Your task to perform on an android device: install app "Pluto TV - Live TV and Movies" Image 0: 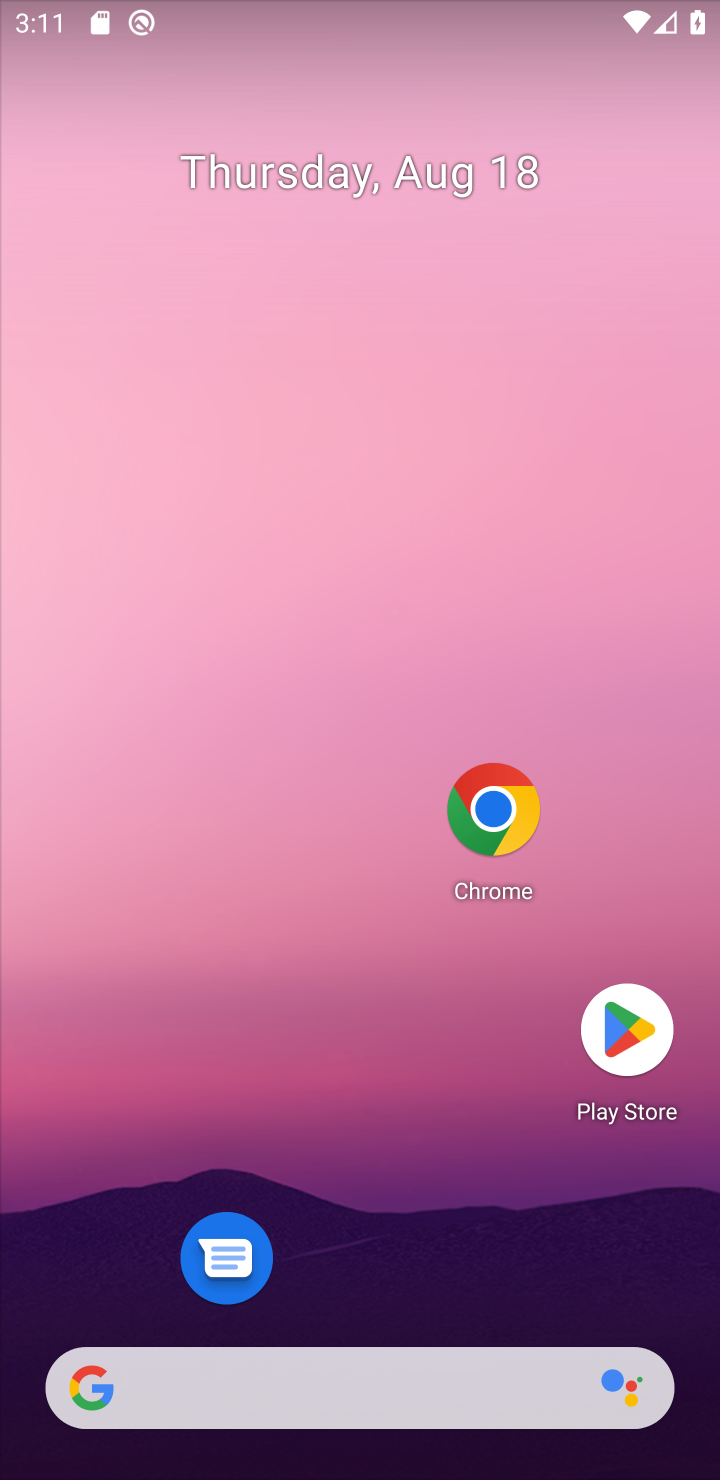
Step 0: drag from (377, 724) to (391, 230)
Your task to perform on an android device: install app "Pluto TV - Live TV and Movies" Image 1: 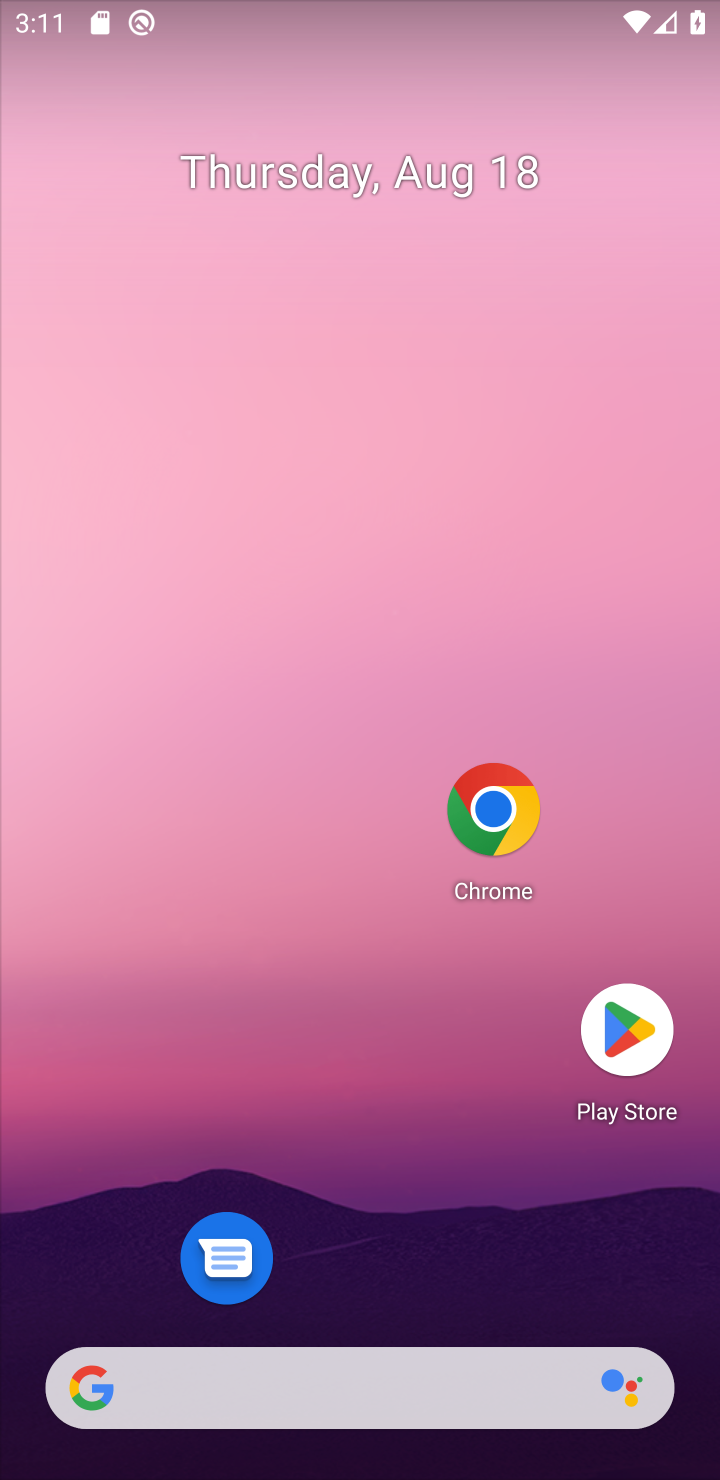
Step 1: drag from (365, 1293) to (341, 435)
Your task to perform on an android device: install app "Pluto TV - Live TV and Movies" Image 2: 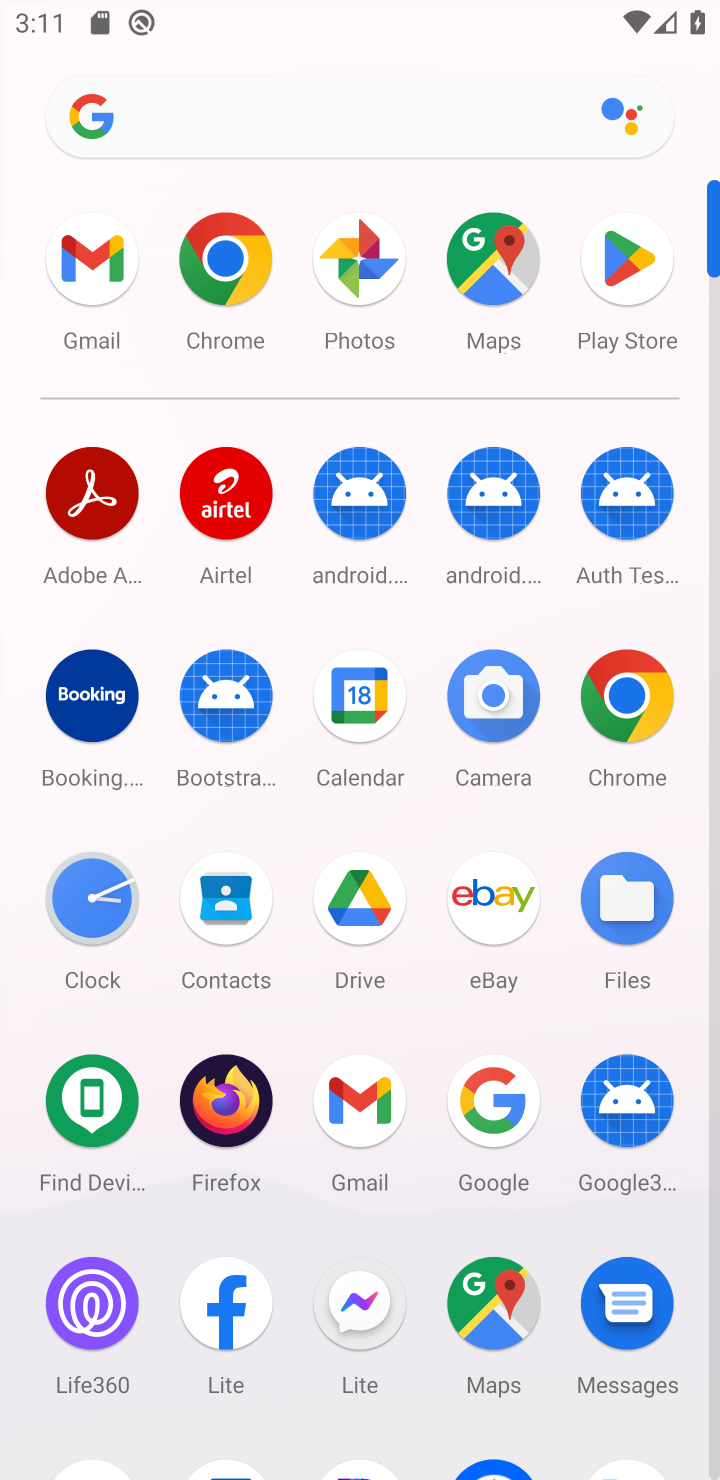
Step 2: click (639, 264)
Your task to perform on an android device: install app "Pluto TV - Live TV and Movies" Image 3: 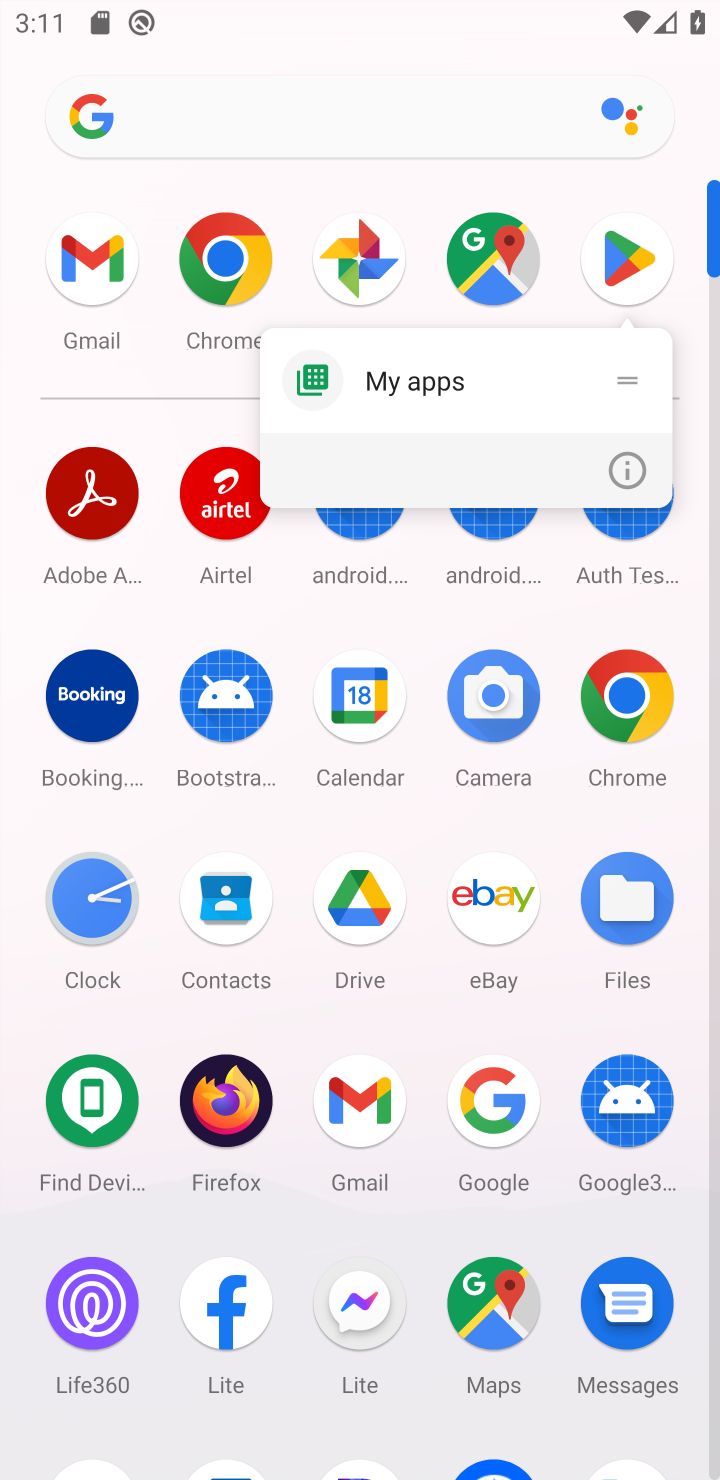
Step 3: click (639, 264)
Your task to perform on an android device: install app "Pluto TV - Live TV and Movies" Image 4: 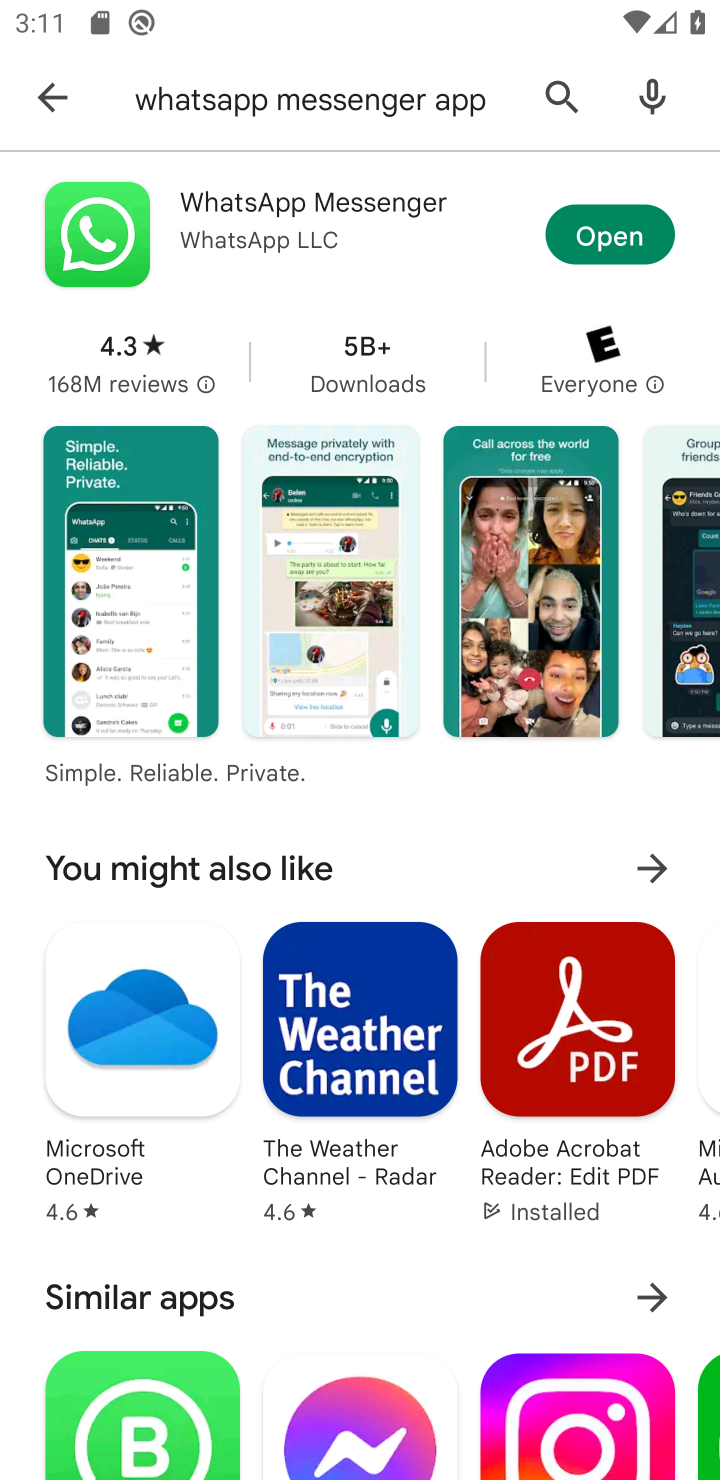
Step 4: click (537, 85)
Your task to perform on an android device: install app "Pluto TV - Live TV and Movies" Image 5: 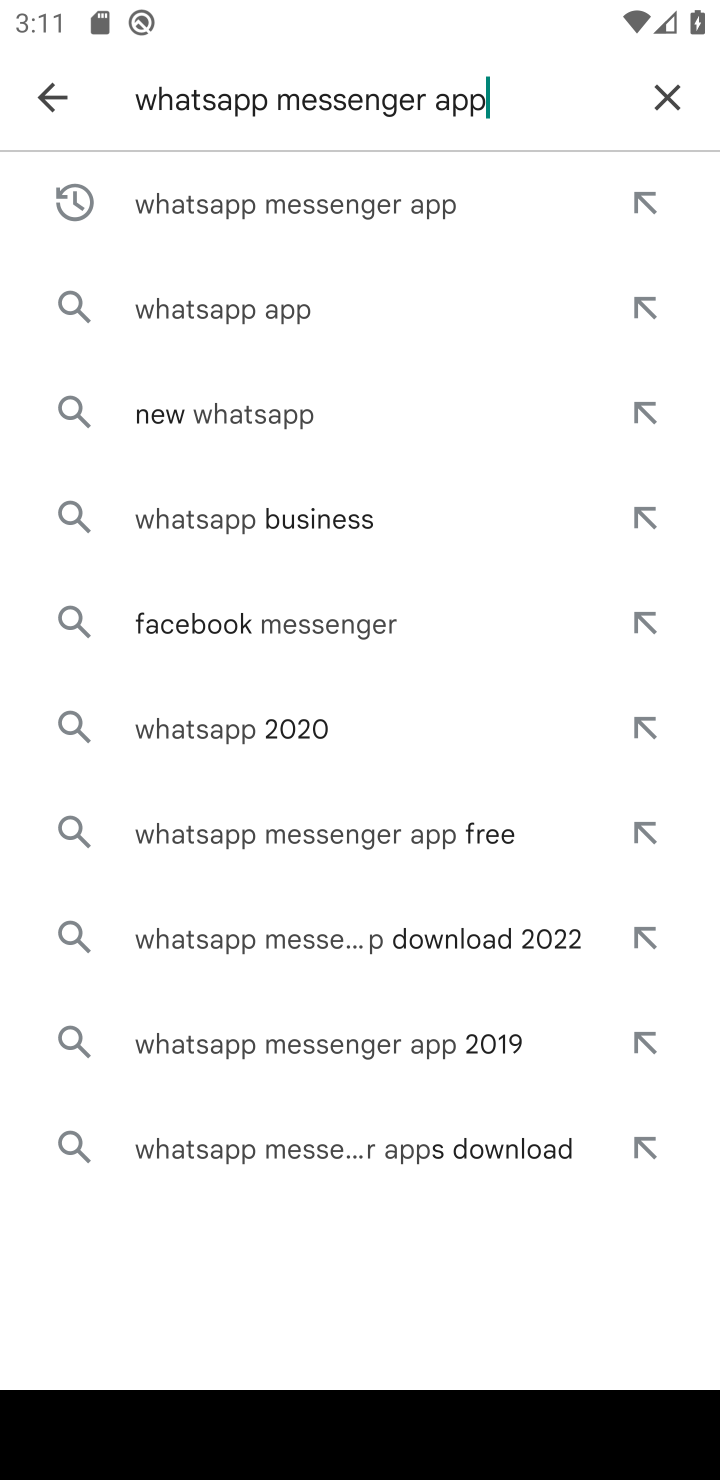
Step 5: click (663, 62)
Your task to perform on an android device: install app "Pluto TV - Live TV and Movies" Image 6: 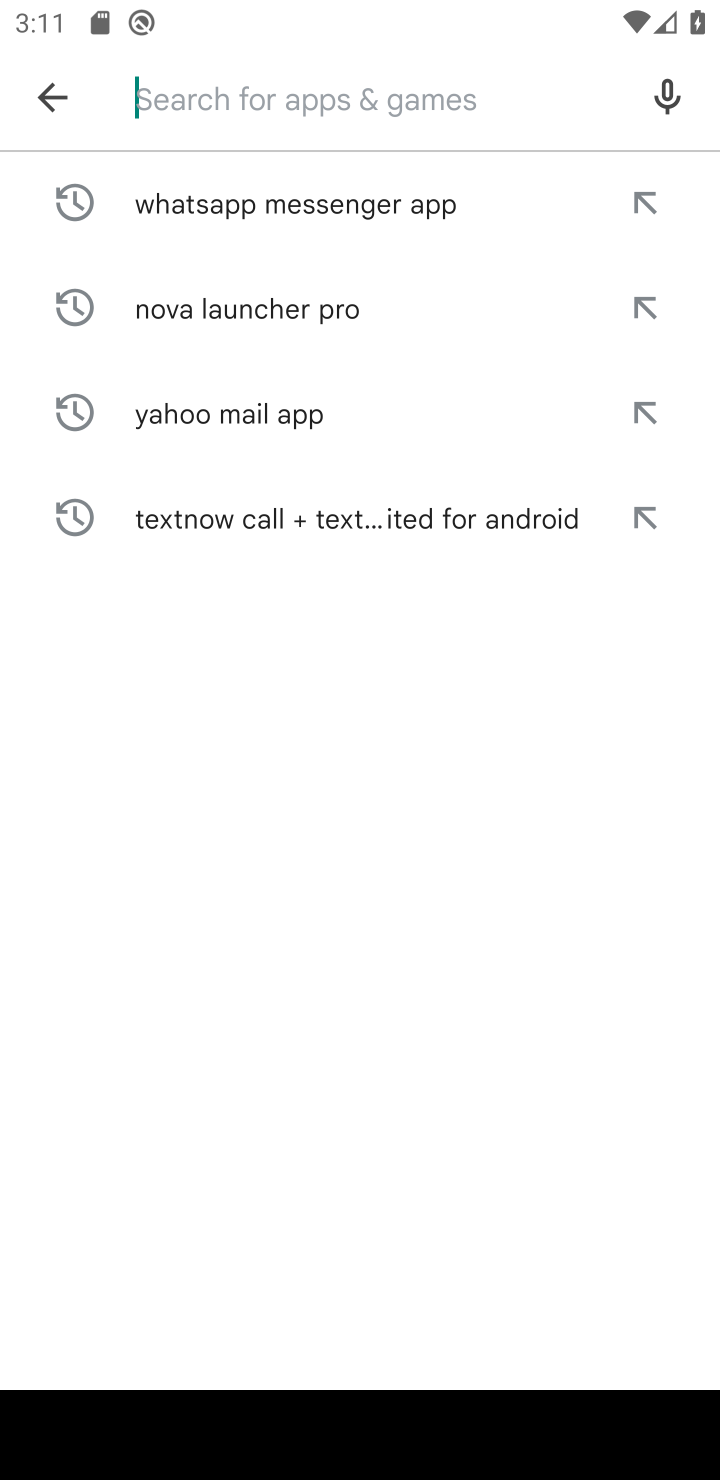
Step 6: click (655, 90)
Your task to perform on an android device: install app "Pluto TV - Live TV and Movies" Image 7: 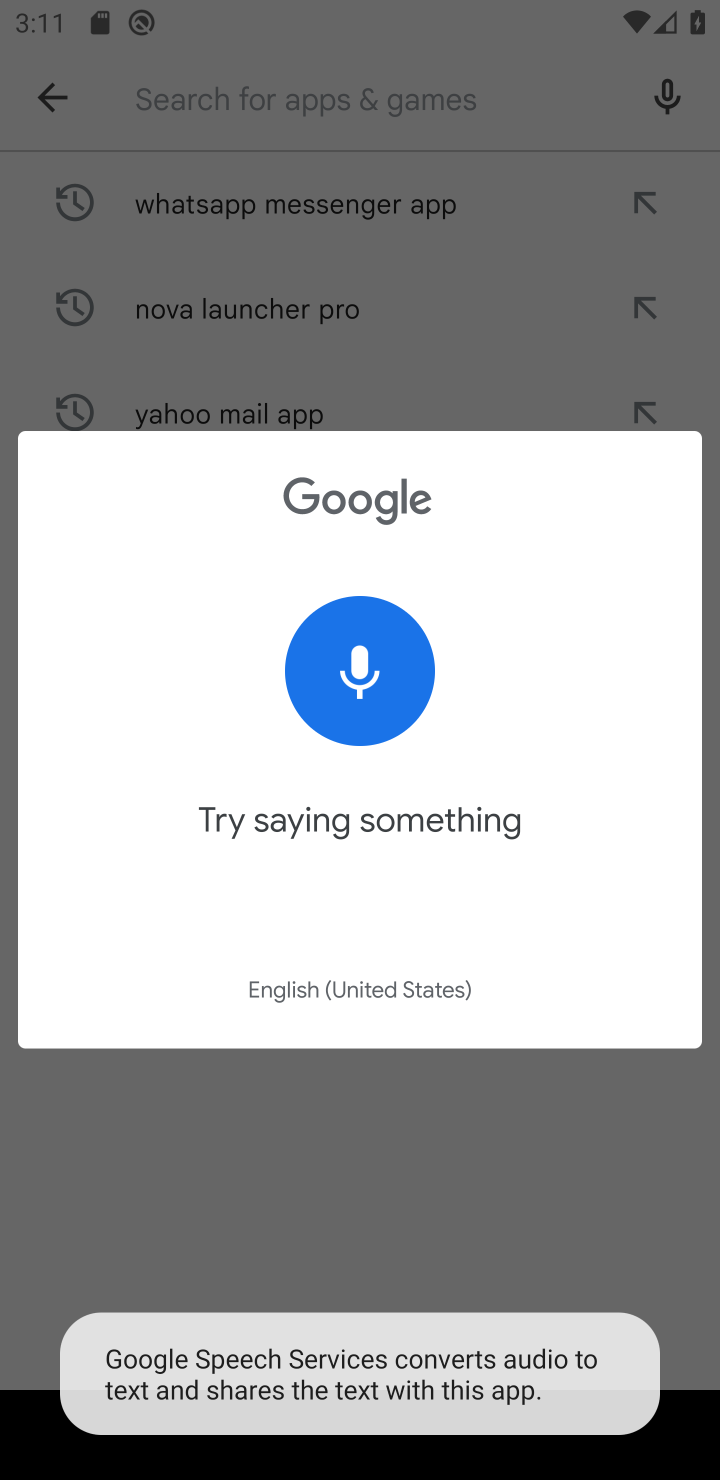
Step 7: click (419, 95)
Your task to perform on an android device: install app "Pluto TV - Live TV and Movies" Image 8: 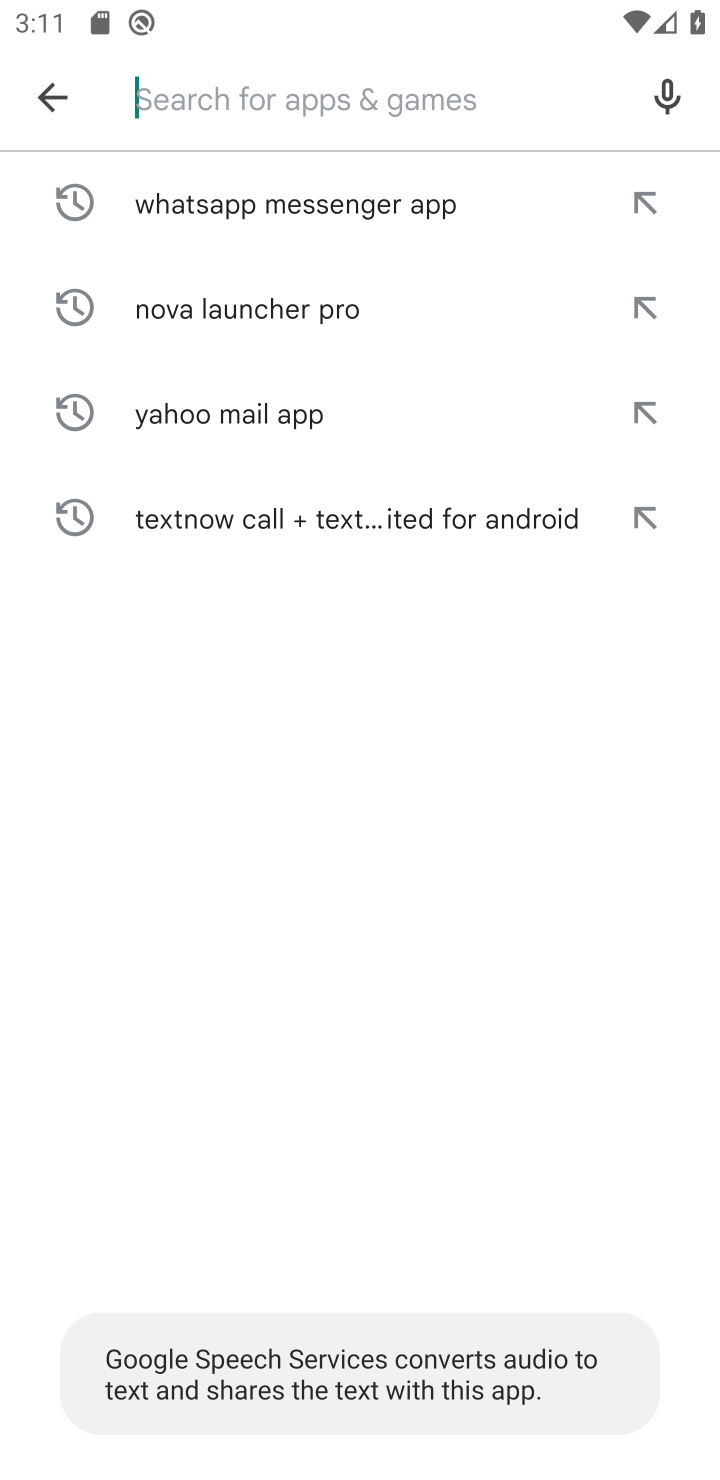
Step 8: click (318, 78)
Your task to perform on an android device: install app "Pluto TV - Live TV and Movies" Image 9: 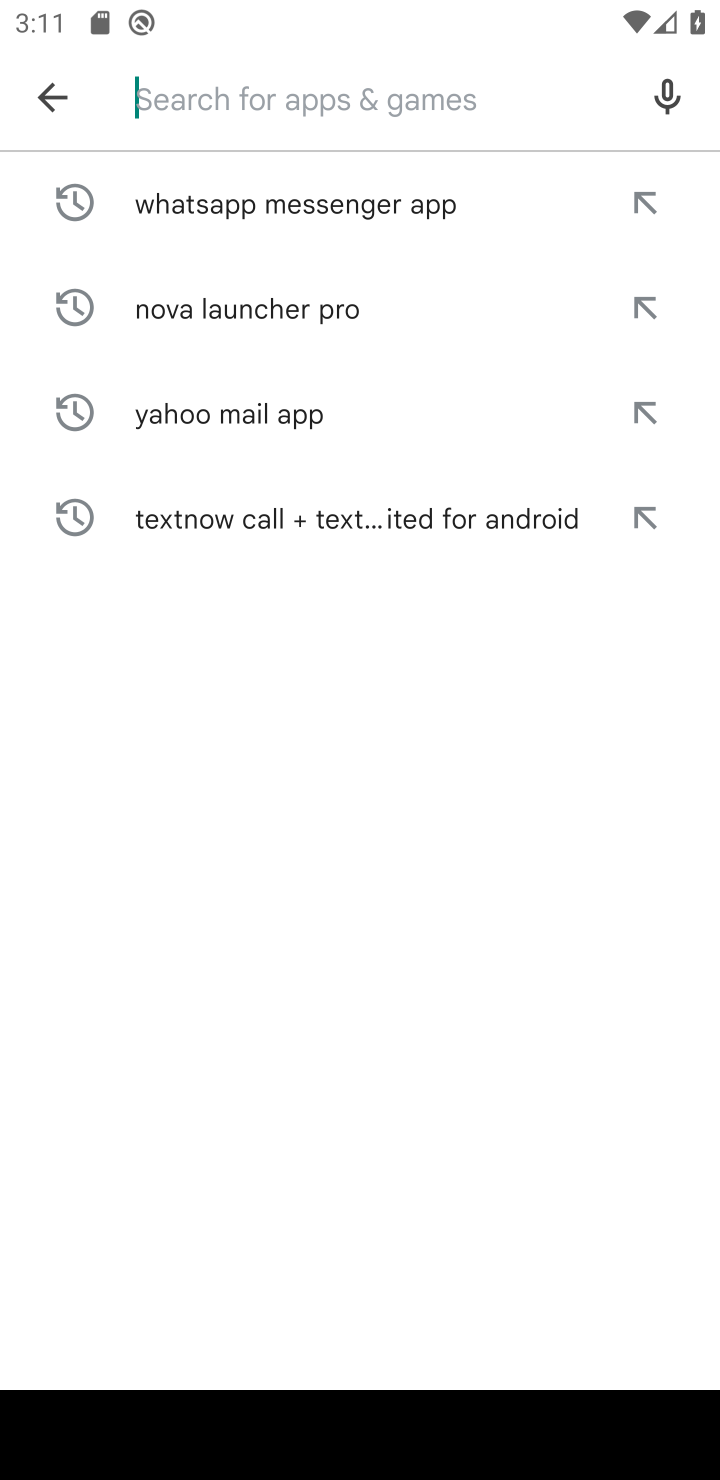
Step 9: type "Pluto TV - Live TV and Movies "
Your task to perform on an android device: install app "Pluto TV - Live TV and Movies" Image 10: 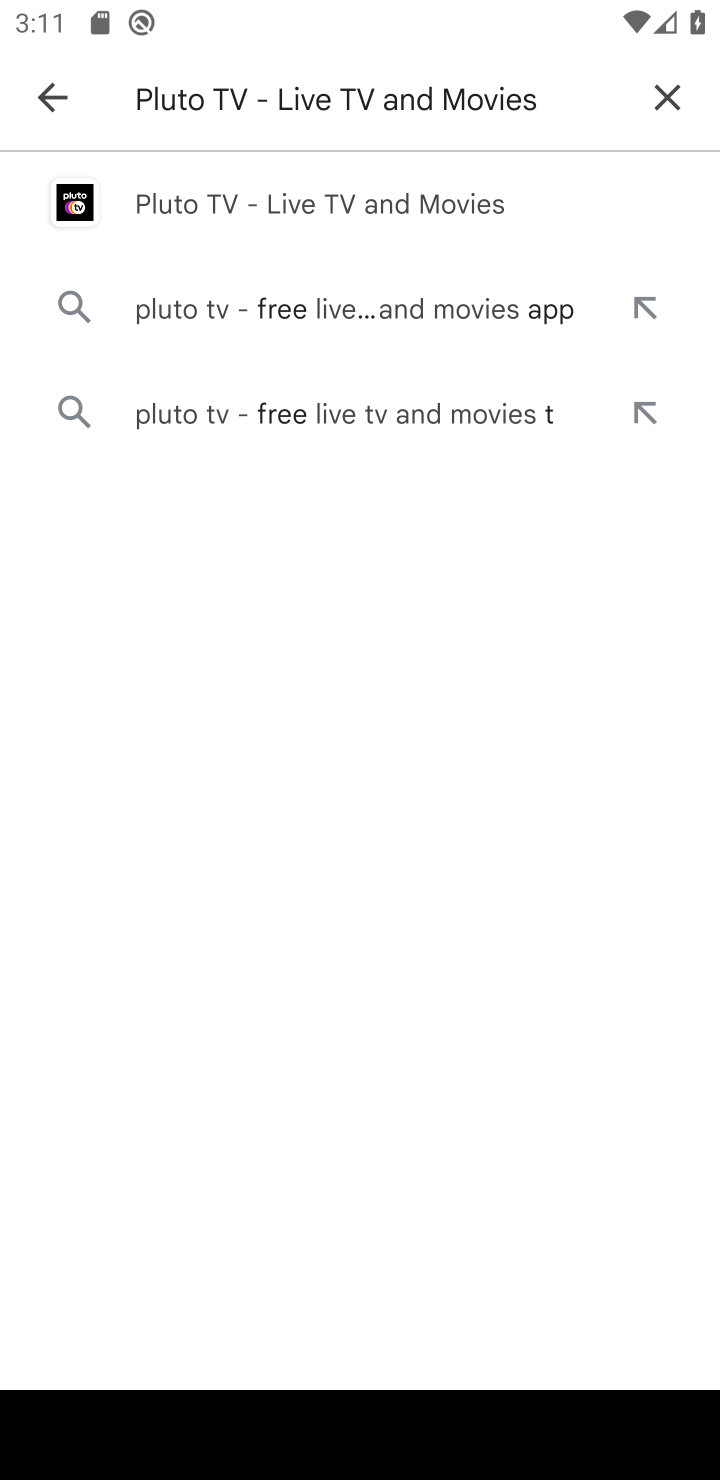
Step 10: click (294, 177)
Your task to perform on an android device: install app "Pluto TV - Live TV and Movies" Image 11: 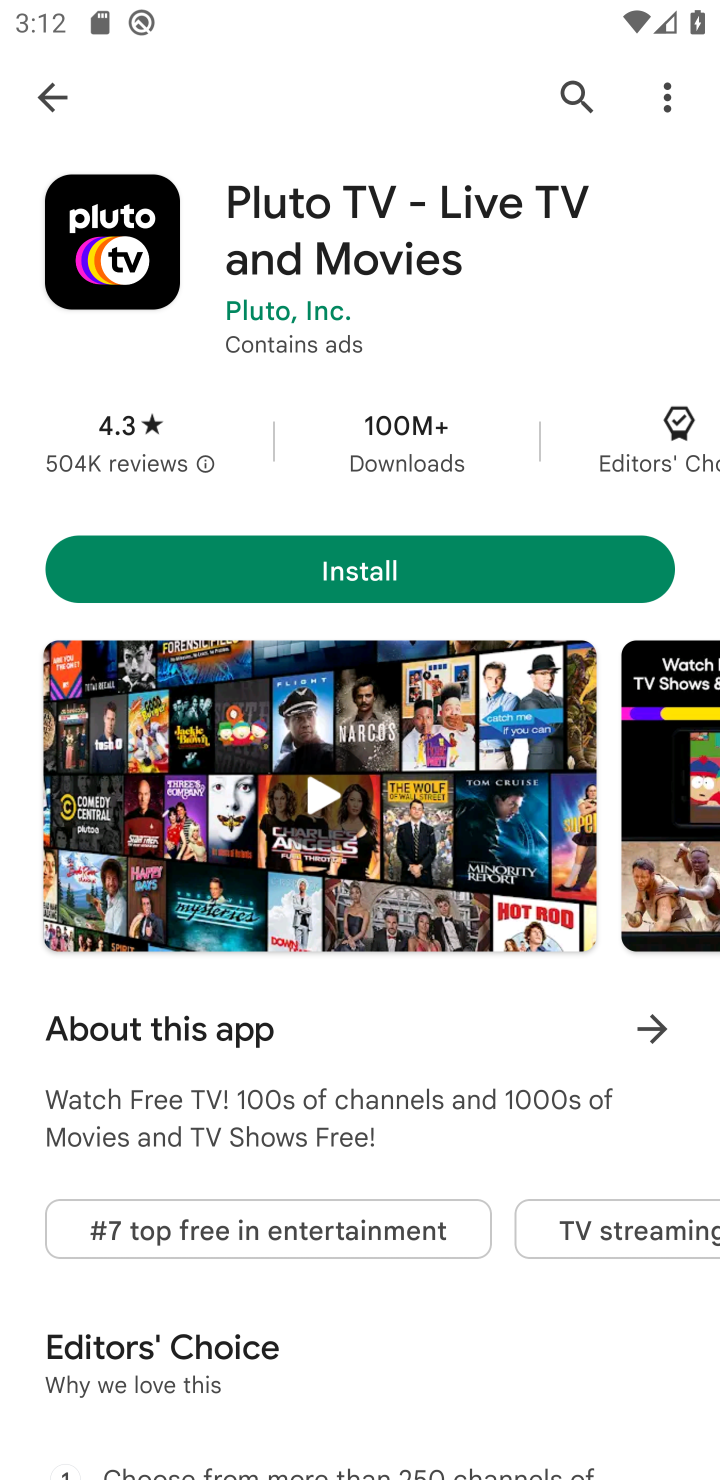
Step 11: click (450, 538)
Your task to perform on an android device: install app "Pluto TV - Live TV and Movies" Image 12: 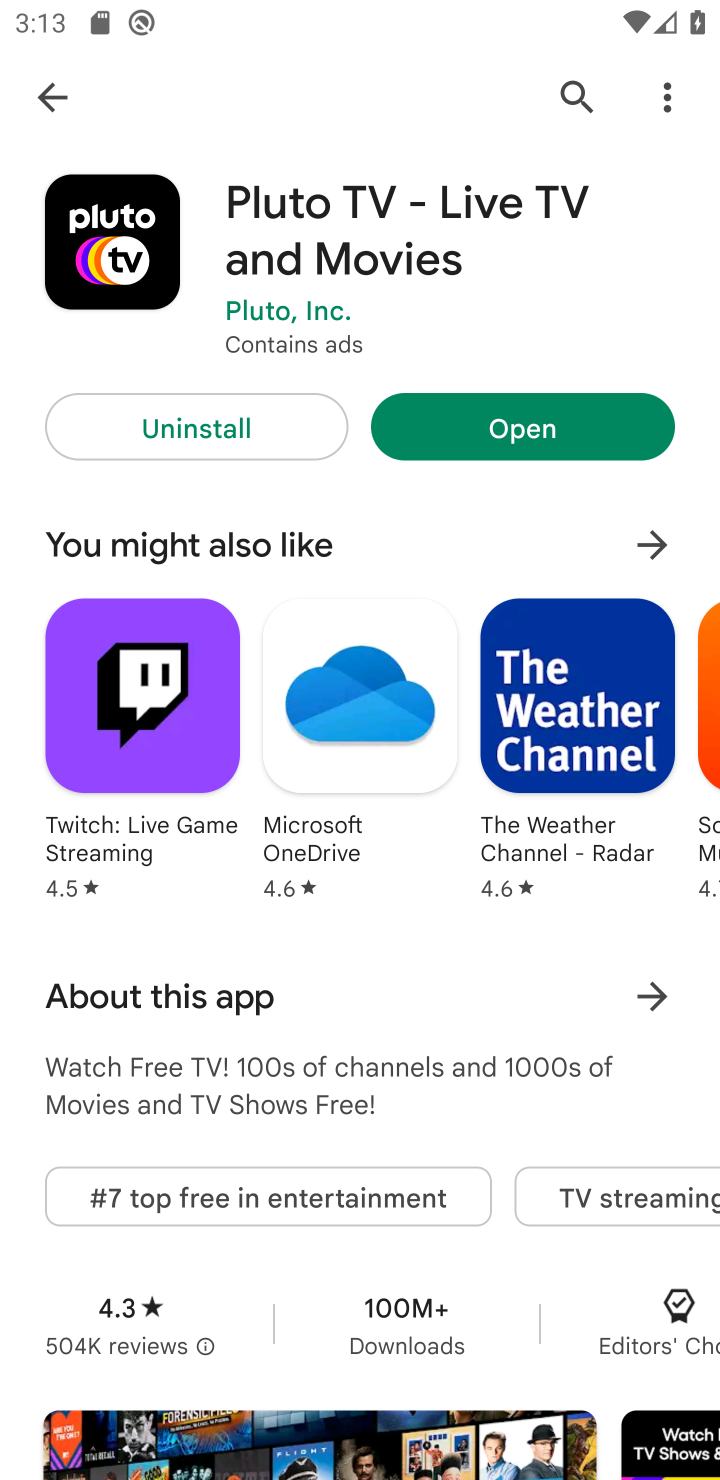
Step 12: click (573, 432)
Your task to perform on an android device: install app "Pluto TV - Live TV and Movies" Image 13: 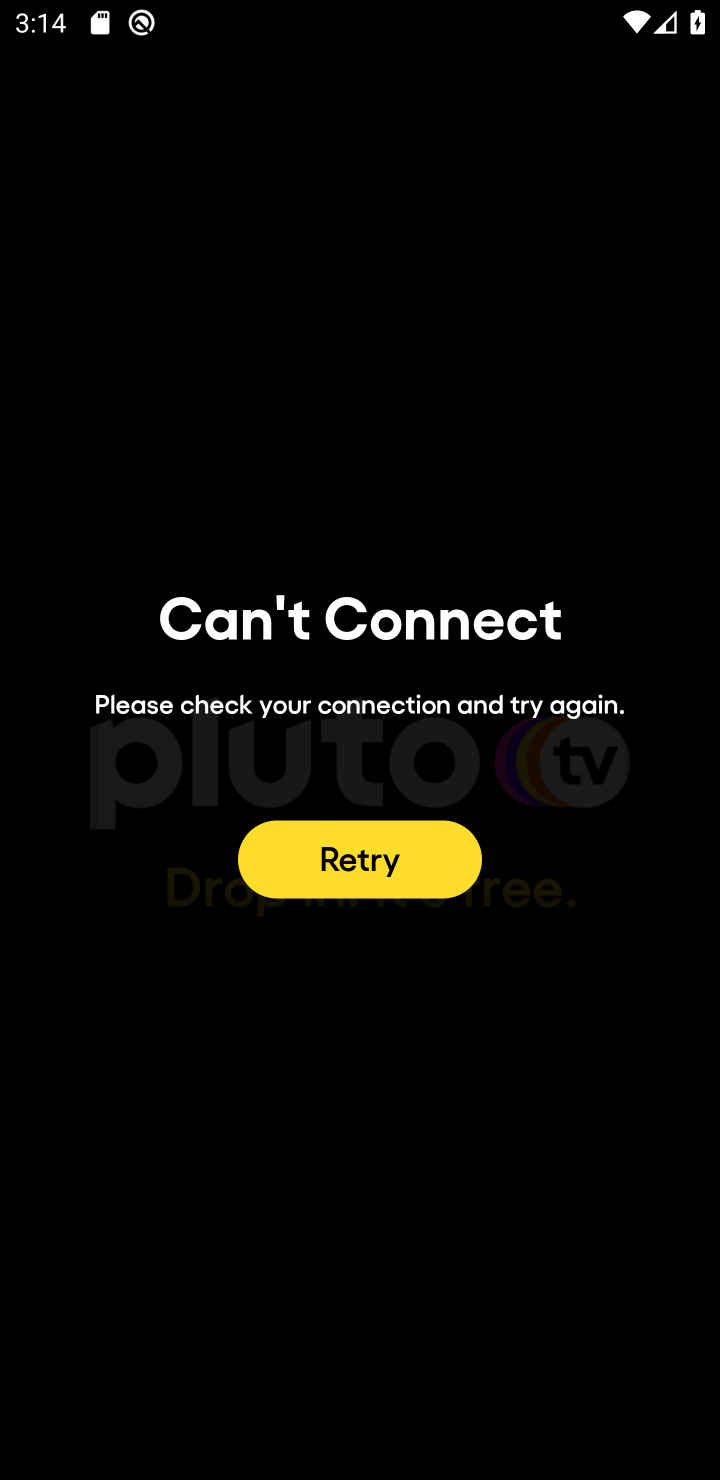
Step 13: task complete